Your task to perform on an android device: visit the assistant section in the google photos Image 0: 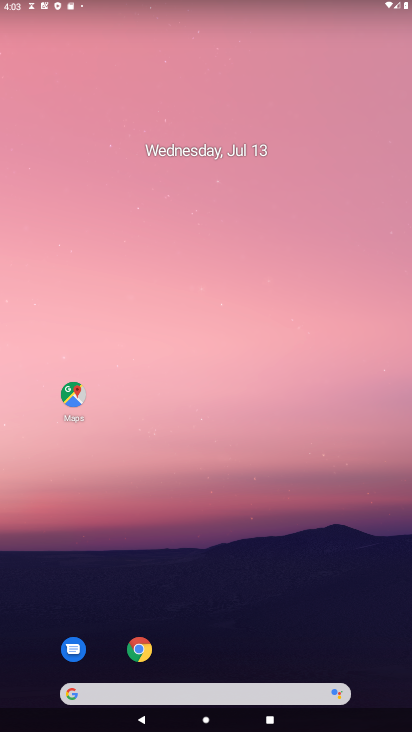
Step 0: drag from (291, 722) to (272, 87)
Your task to perform on an android device: visit the assistant section in the google photos Image 1: 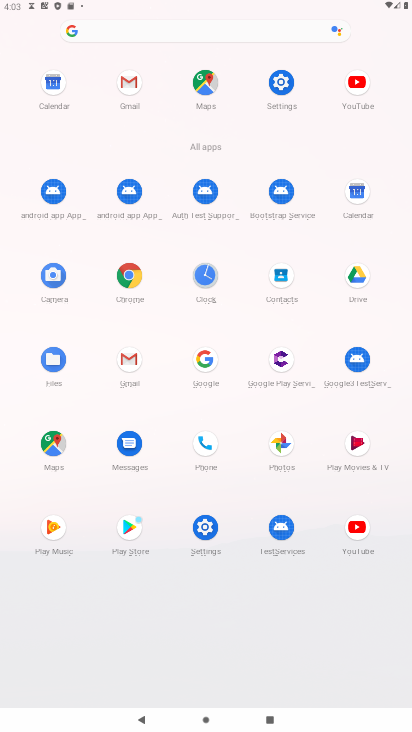
Step 1: click (281, 448)
Your task to perform on an android device: visit the assistant section in the google photos Image 2: 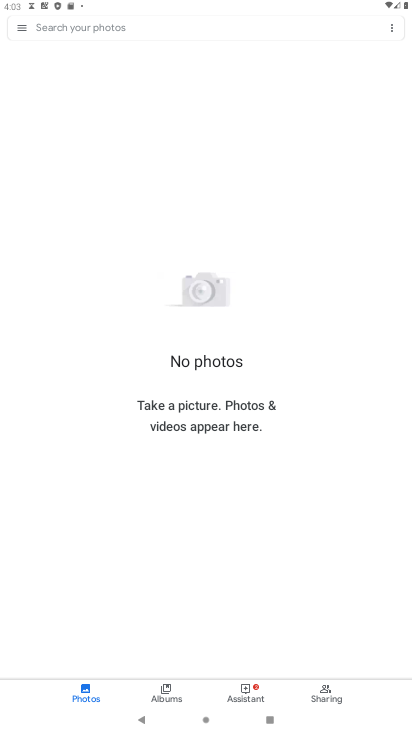
Step 2: click (242, 691)
Your task to perform on an android device: visit the assistant section in the google photos Image 3: 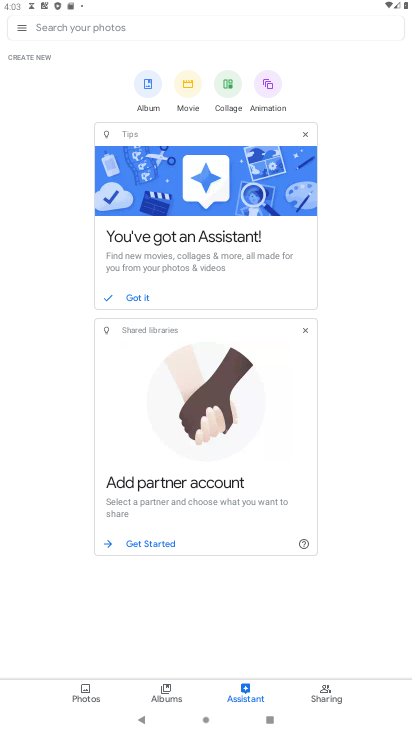
Step 3: task complete